Your task to perform on an android device: Show me recent news Image 0: 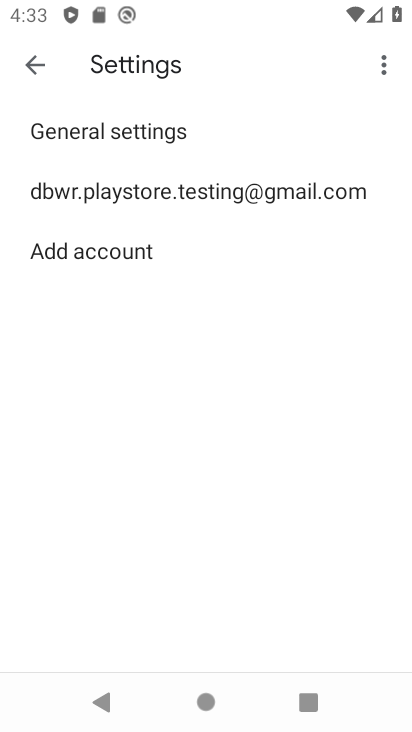
Step 0: press home button
Your task to perform on an android device: Show me recent news Image 1: 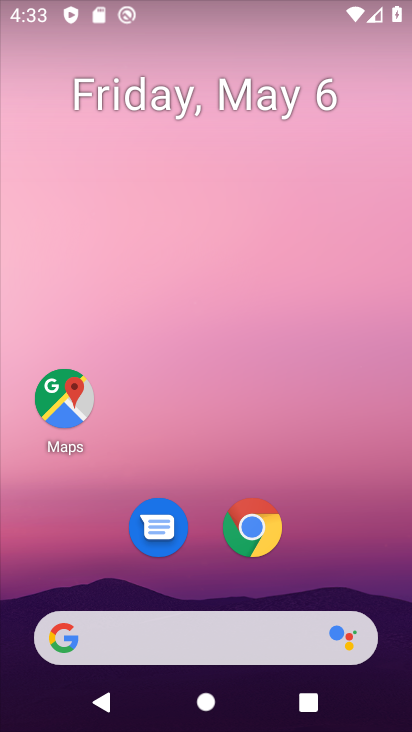
Step 1: task complete